Your task to perform on an android device: change the clock display to digital Image 0: 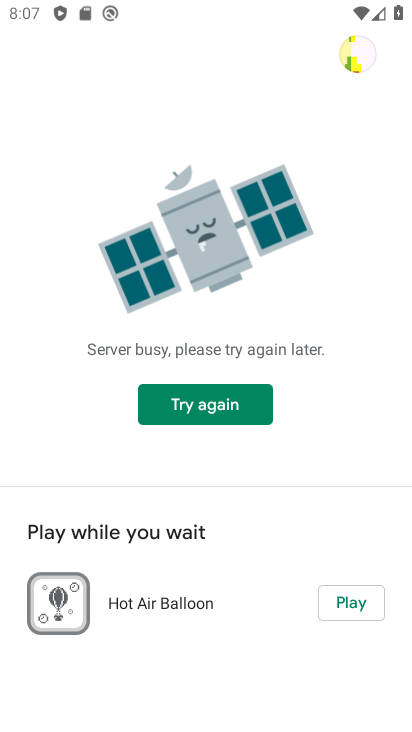
Step 0: press back button
Your task to perform on an android device: change the clock display to digital Image 1: 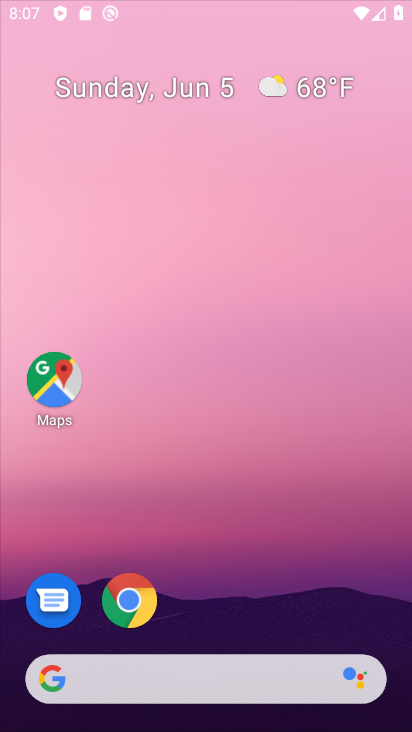
Step 1: press home button
Your task to perform on an android device: change the clock display to digital Image 2: 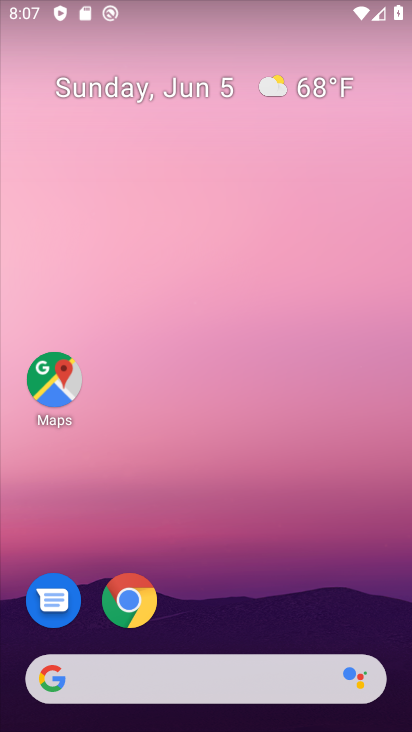
Step 2: drag from (335, 604) to (261, 38)
Your task to perform on an android device: change the clock display to digital Image 3: 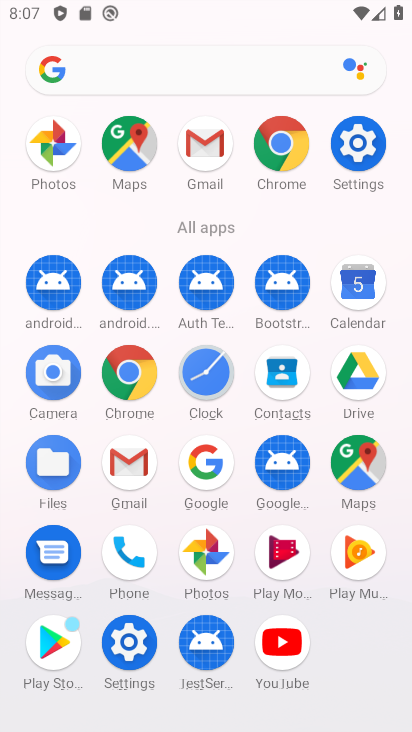
Step 3: click (202, 371)
Your task to perform on an android device: change the clock display to digital Image 4: 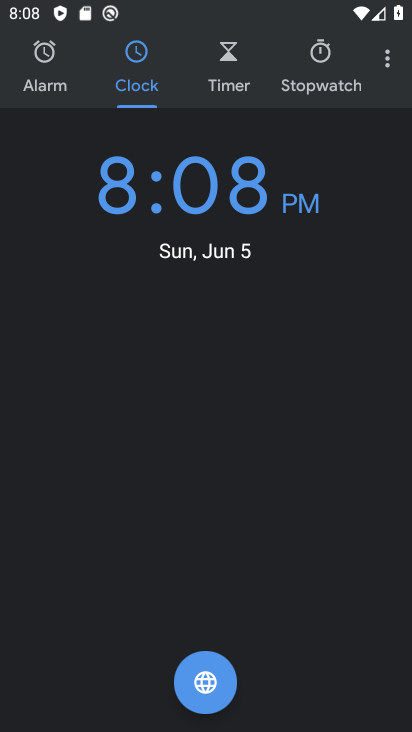
Step 4: click (392, 48)
Your task to perform on an android device: change the clock display to digital Image 5: 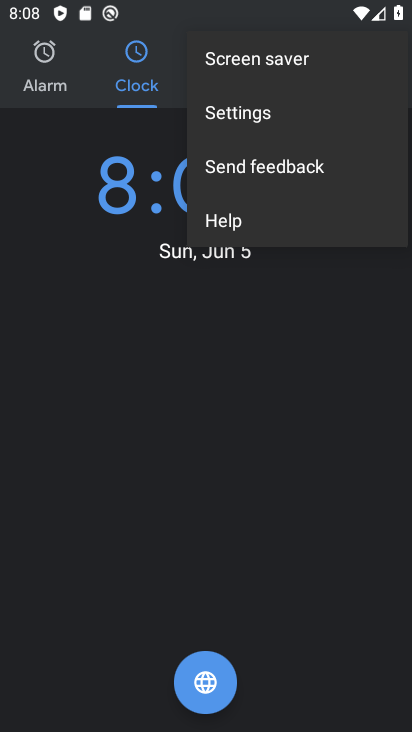
Step 5: click (287, 125)
Your task to perform on an android device: change the clock display to digital Image 6: 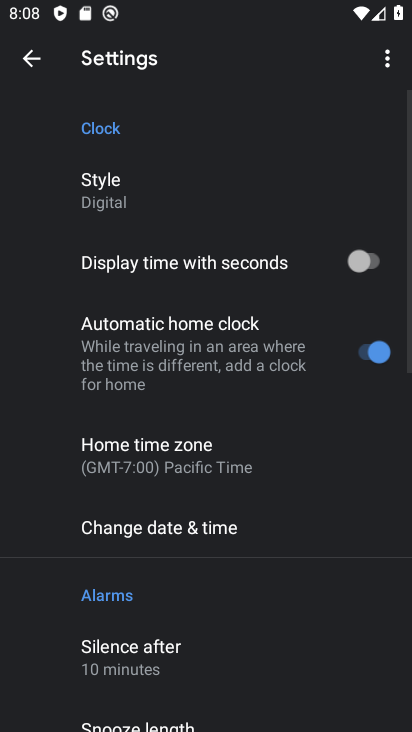
Step 6: click (122, 200)
Your task to perform on an android device: change the clock display to digital Image 7: 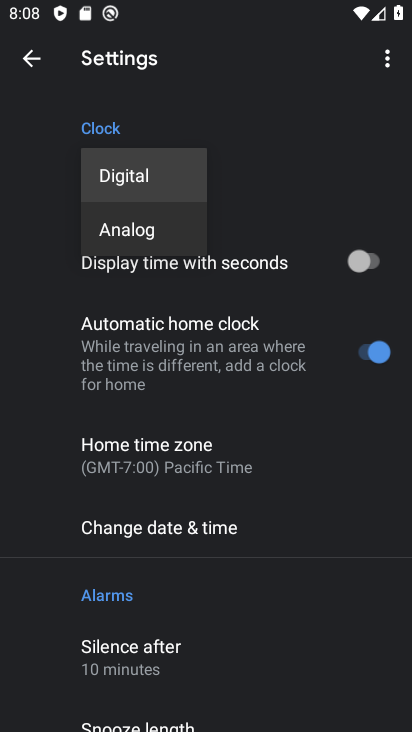
Step 7: click (166, 171)
Your task to perform on an android device: change the clock display to digital Image 8: 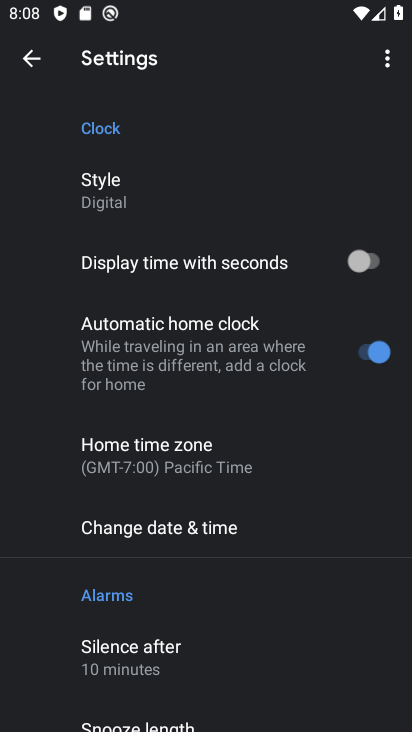
Step 8: task complete